Your task to perform on an android device: Go to notification settings Image 0: 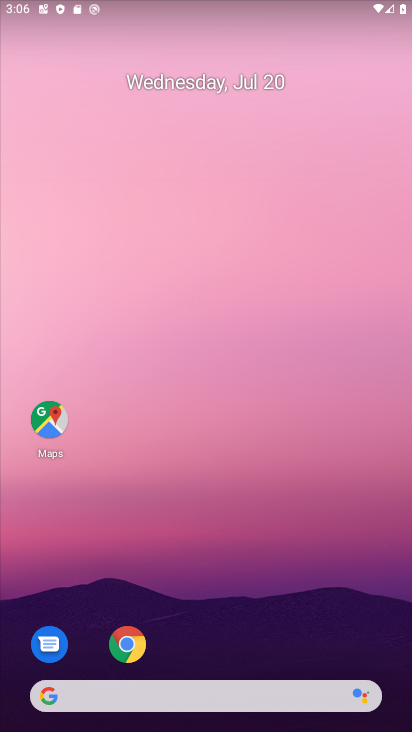
Step 0: drag from (198, 662) to (171, 219)
Your task to perform on an android device: Go to notification settings Image 1: 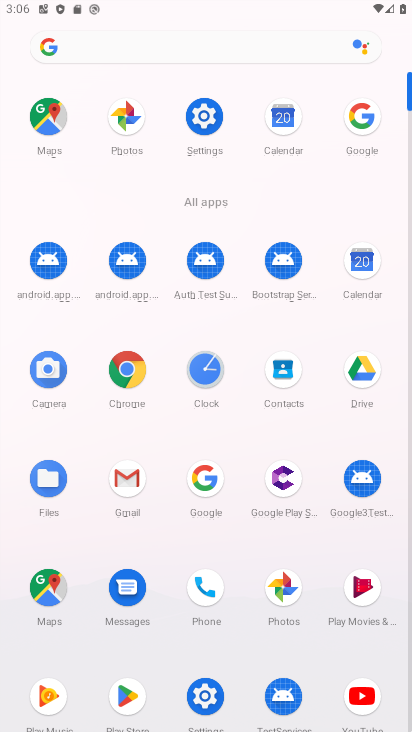
Step 1: click (203, 101)
Your task to perform on an android device: Go to notification settings Image 2: 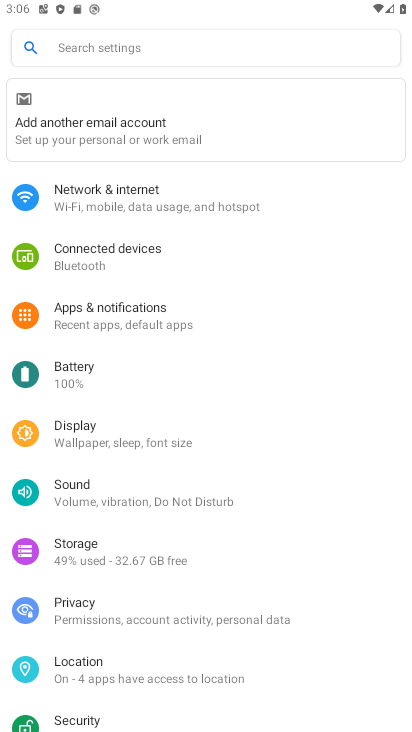
Step 2: click (111, 500)
Your task to perform on an android device: Go to notification settings Image 3: 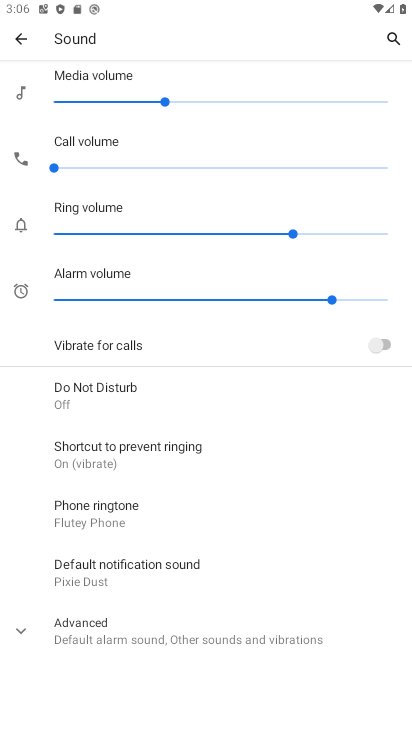
Step 3: click (90, 628)
Your task to perform on an android device: Go to notification settings Image 4: 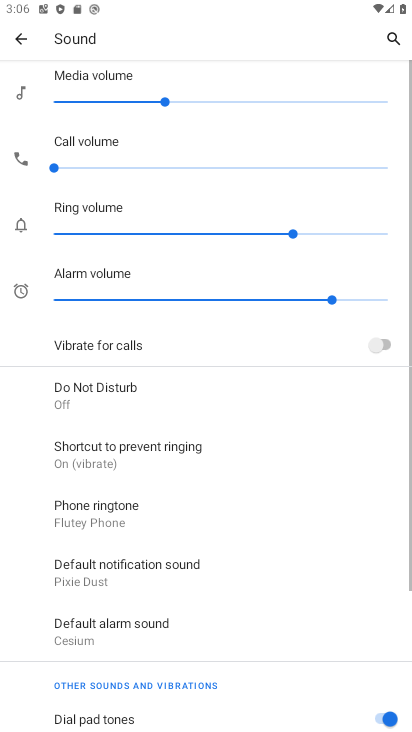
Step 4: task complete